Your task to perform on an android device: Open network settings Image 0: 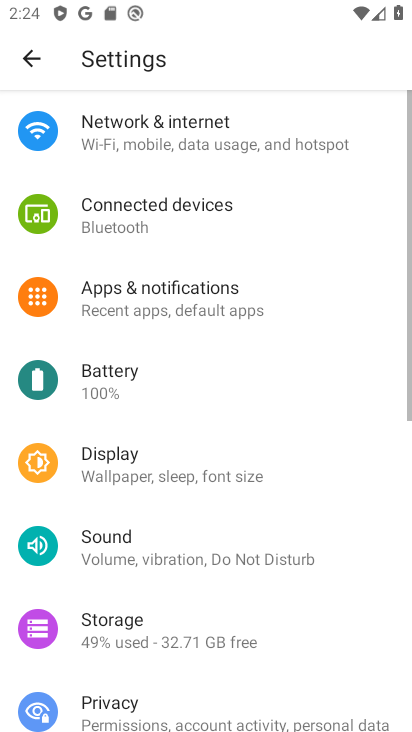
Step 0: click (283, 154)
Your task to perform on an android device: Open network settings Image 1: 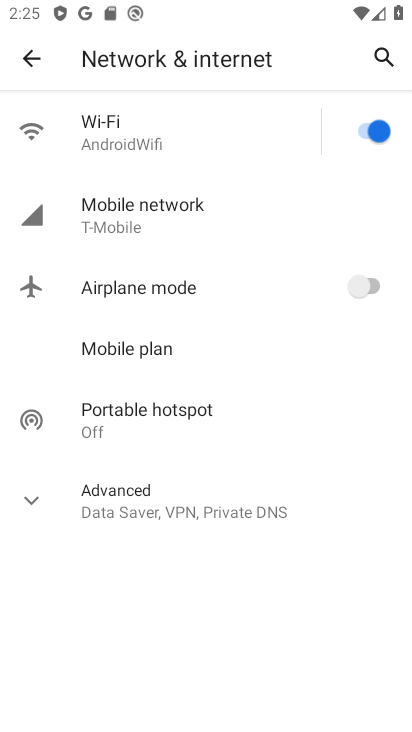
Step 1: click (215, 226)
Your task to perform on an android device: Open network settings Image 2: 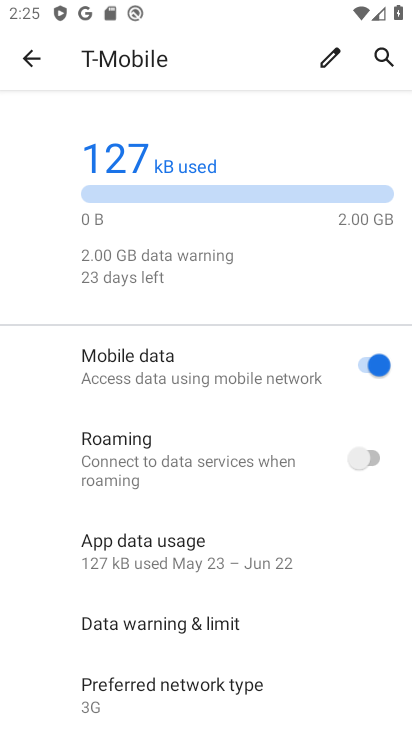
Step 2: task complete